Your task to perform on an android device: empty trash in the gmail app Image 0: 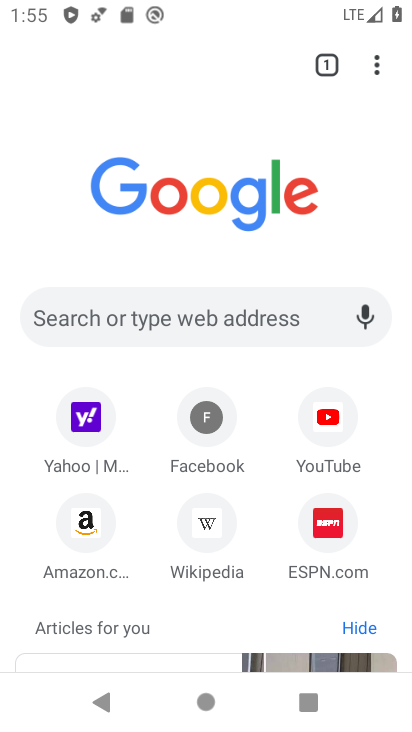
Step 0: press home button
Your task to perform on an android device: empty trash in the gmail app Image 1: 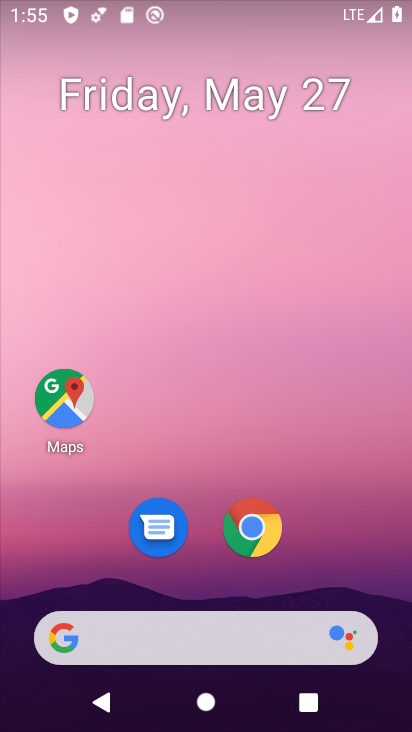
Step 1: drag from (172, 701) to (258, 135)
Your task to perform on an android device: empty trash in the gmail app Image 2: 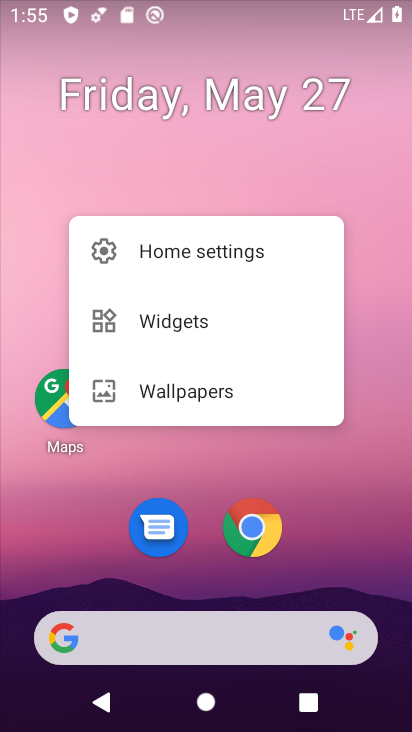
Step 2: press home button
Your task to perform on an android device: empty trash in the gmail app Image 3: 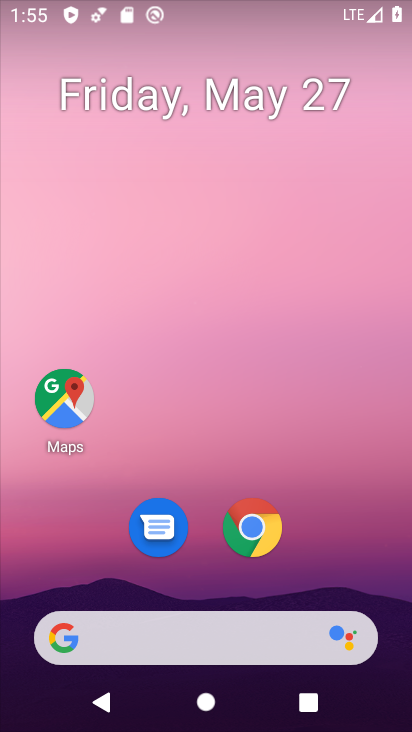
Step 3: drag from (154, 609) to (145, 9)
Your task to perform on an android device: empty trash in the gmail app Image 4: 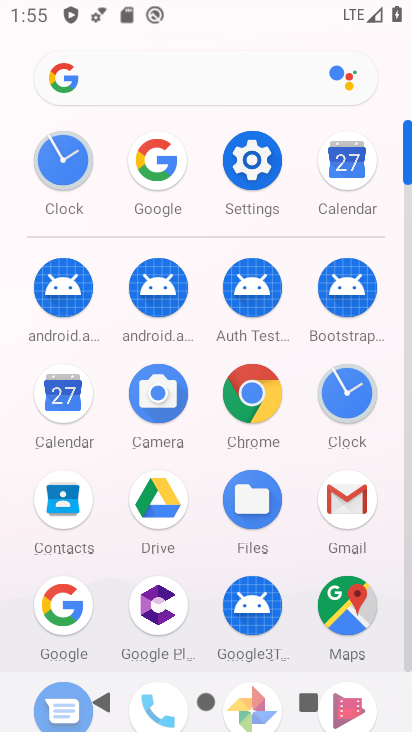
Step 4: click (338, 501)
Your task to perform on an android device: empty trash in the gmail app Image 5: 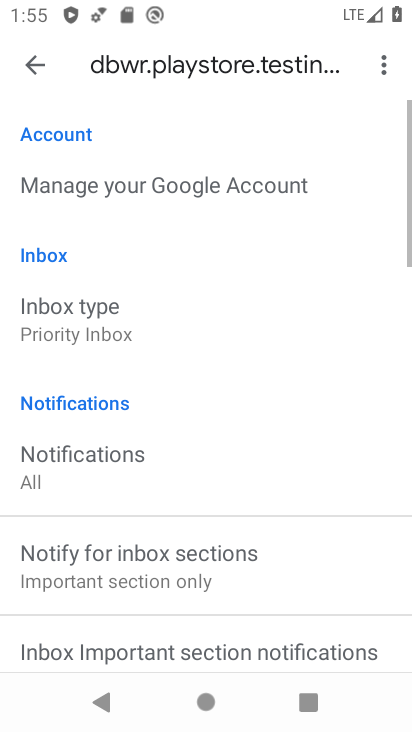
Step 5: click (29, 70)
Your task to perform on an android device: empty trash in the gmail app Image 6: 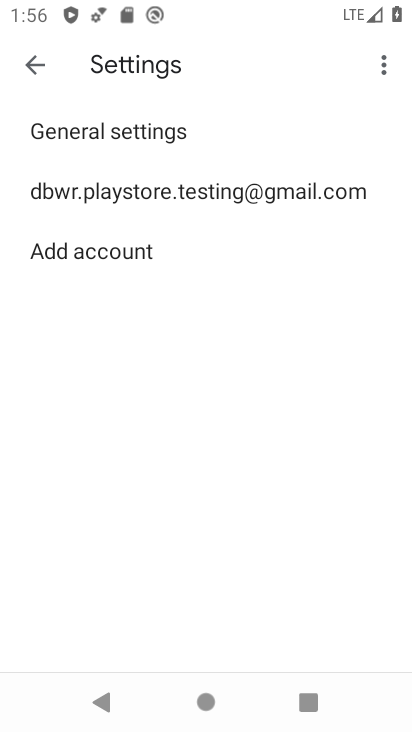
Step 6: click (29, 70)
Your task to perform on an android device: empty trash in the gmail app Image 7: 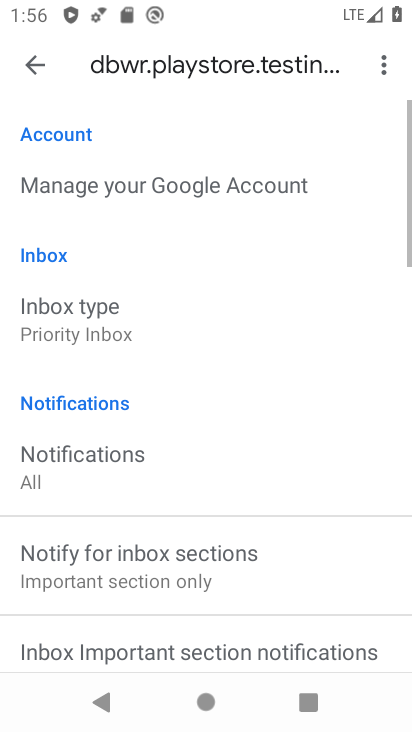
Step 7: click (29, 70)
Your task to perform on an android device: empty trash in the gmail app Image 8: 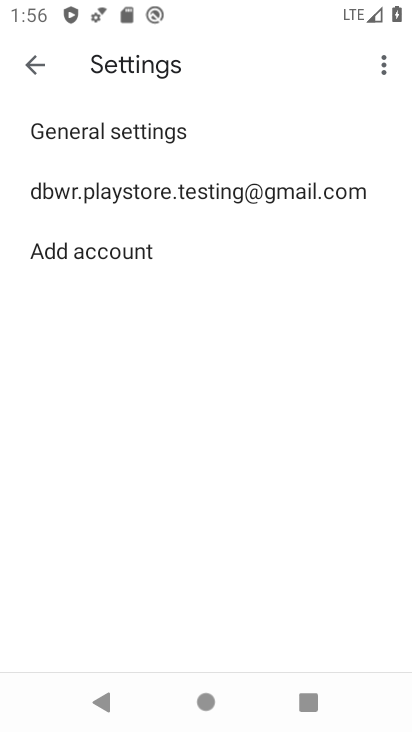
Step 8: click (29, 70)
Your task to perform on an android device: empty trash in the gmail app Image 9: 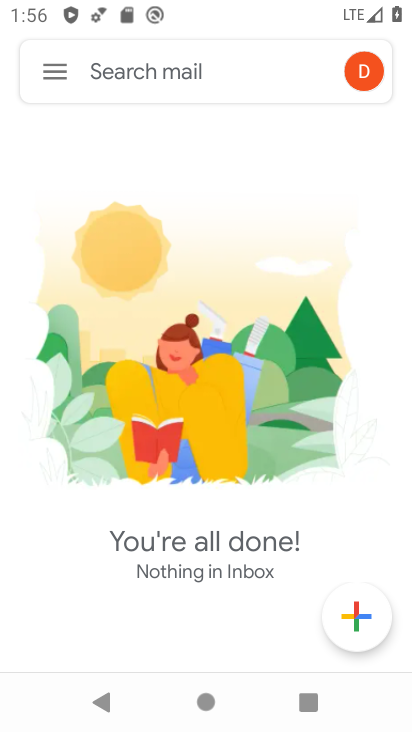
Step 9: click (58, 81)
Your task to perform on an android device: empty trash in the gmail app Image 10: 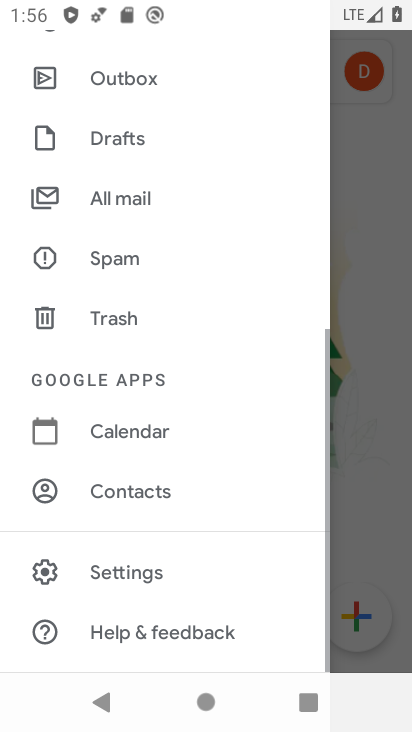
Step 10: click (93, 318)
Your task to perform on an android device: empty trash in the gmail app Image 11: 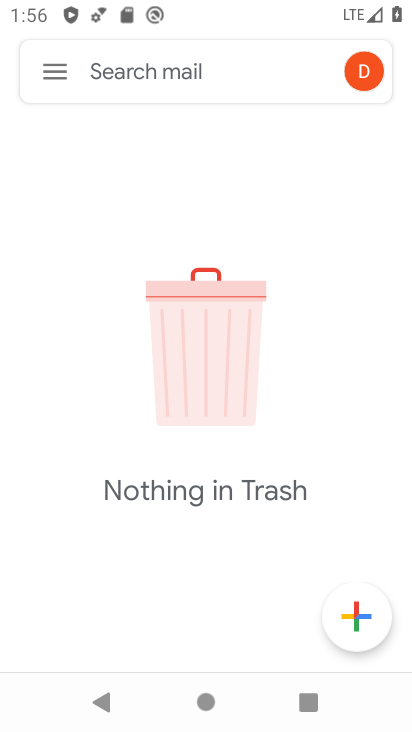
Step 11: task complete